Your task to perform on an android device: search for starred emails in the gmail app Image 0: 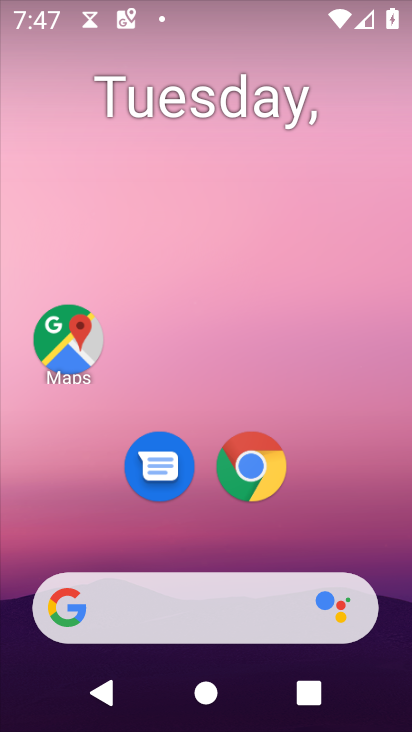
Step 0: drag from (215, 548) to (221, 78)
Your task to perform on an android device: search for starred emails in the gmail app Image 1: 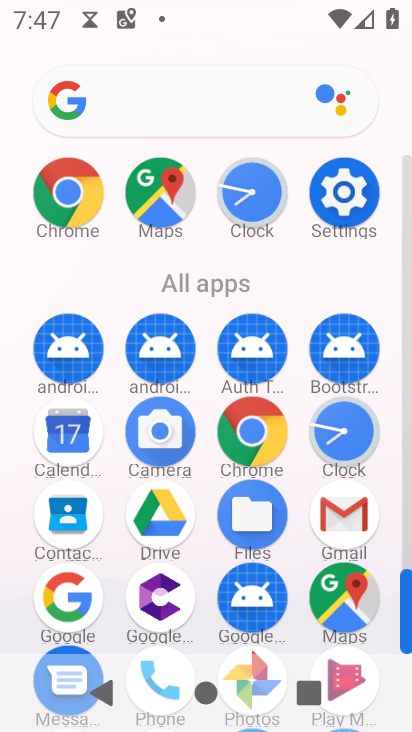
Step 1: click (344, 507)
Your task to perform on an android device: search for starred emails in the gmail app Image 2: 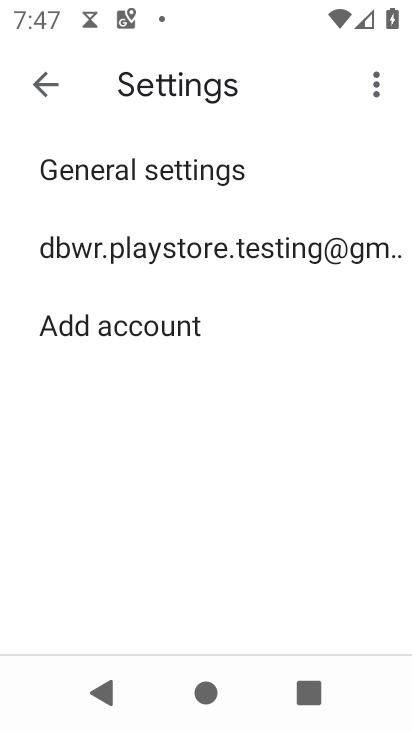
Step 2: click (59, 77)
Your task to perform on an android device: search for starred emails in the gmail app Image 3: 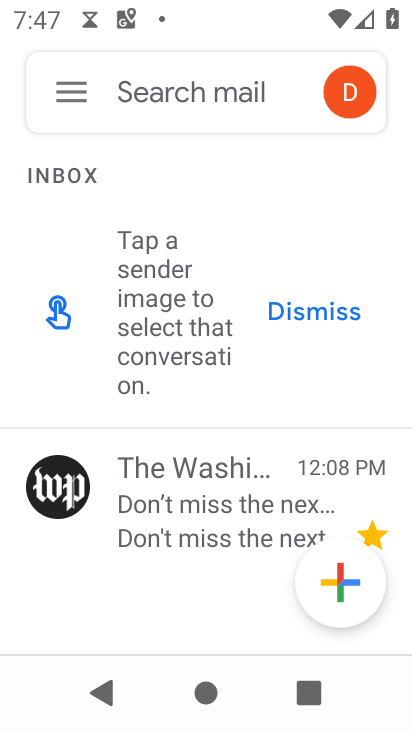
Step 3: click (71, 84)
Your task to perform on an android device: search for starred emails in the gmail app Image 4: 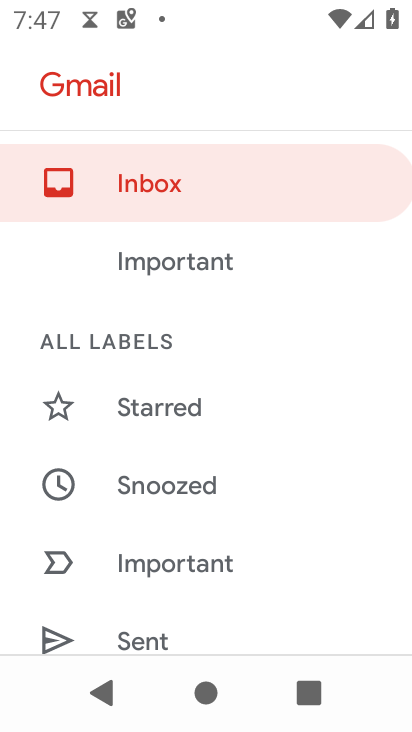
Step 4: click (216, 402)
Your task to perform on an android device: search for starred emails in the gmail app Image 5: 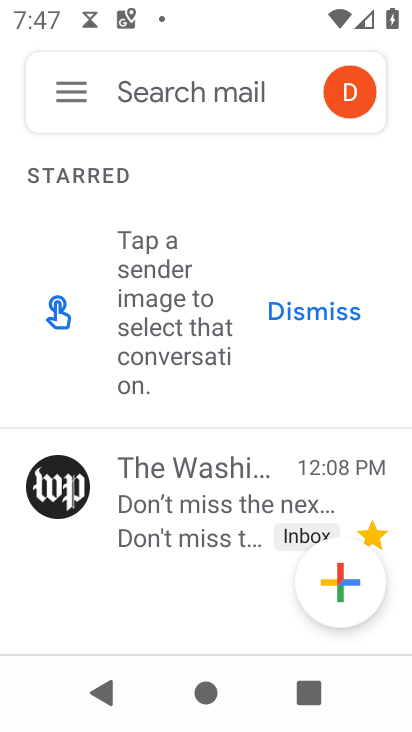
Step 5: task complete